Your task to perform on an android device: Find coffee shops on Maps Image 0: 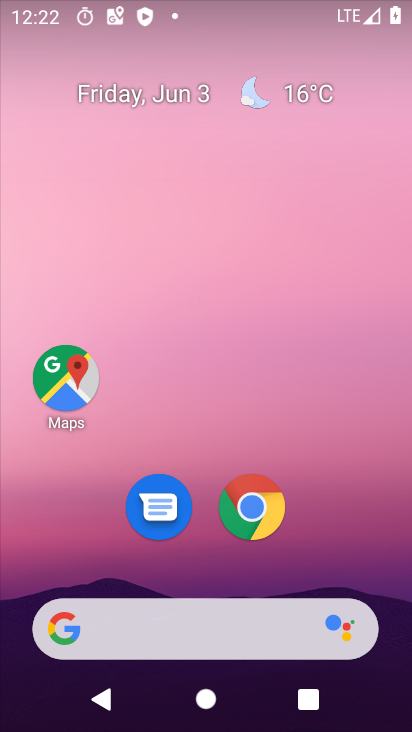
Step 0: drag from (392, 630) to (340, 75)
Your task to perform on an android device: Find coffee shops on Maps Image 1: 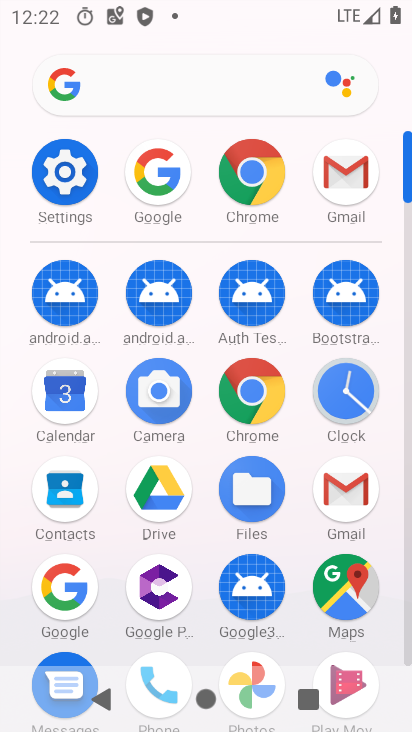
Step 1: click (354, 589)
Your task to perform on an android device: Find coffee shops on Maps Image 2: 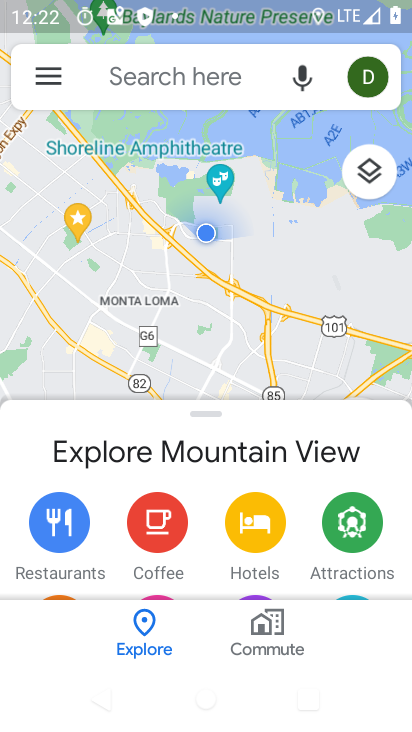
Step 2: click (114, 87)
Your task to perform on an android device: Find coffee shops on Maps Image 3: 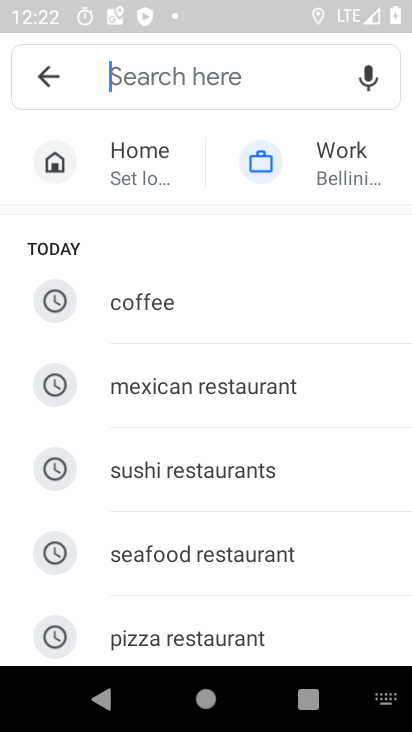
Step 3: click (162, 325)
Your task to perform on an android device: Find coffee shops on Maps Image 4: 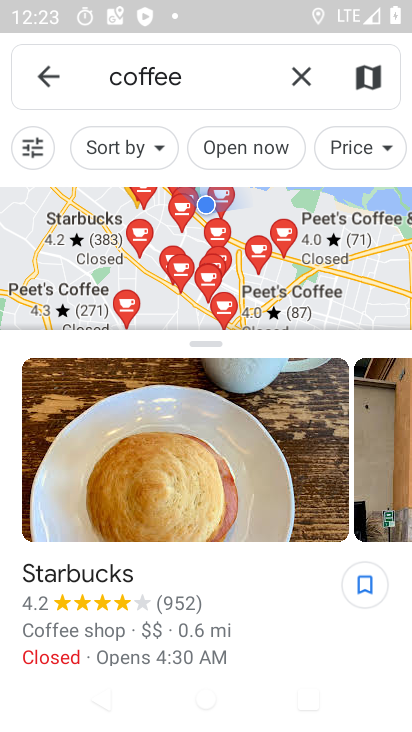
Step 4: task complete